Your task to perform on an android device: turn off notifications in google photos Image 0: 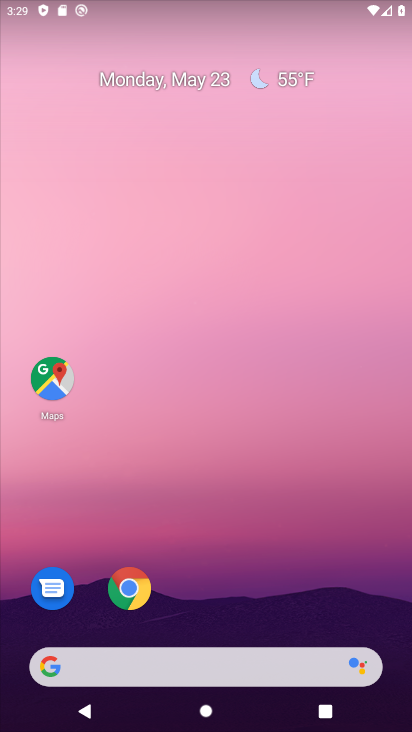
Step 0: drag from (244, 577) to (279, 78)
Your task to perform on an android device: turn off notifications in google photos Image 1: 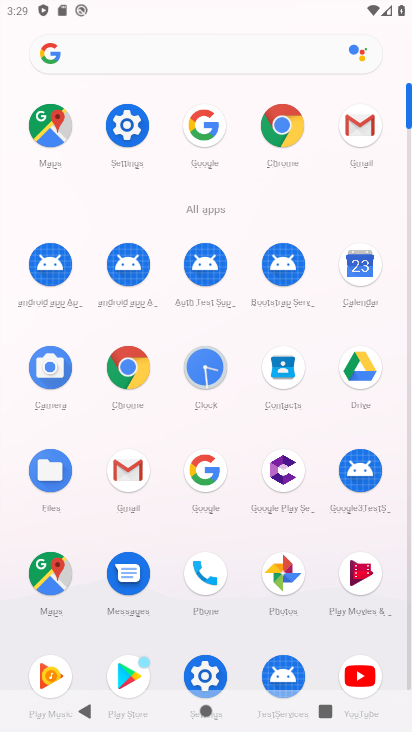
Step 1: click (281, 577)
Your task to perform on an android device: turn off notifications in google photos Image 2: 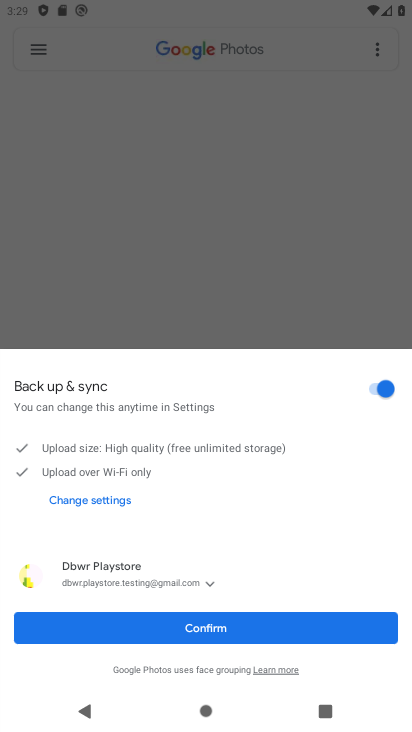
Step 2: click (226, 624)
Your task to perform on an android device: turn off notifications in google photos Image 3: 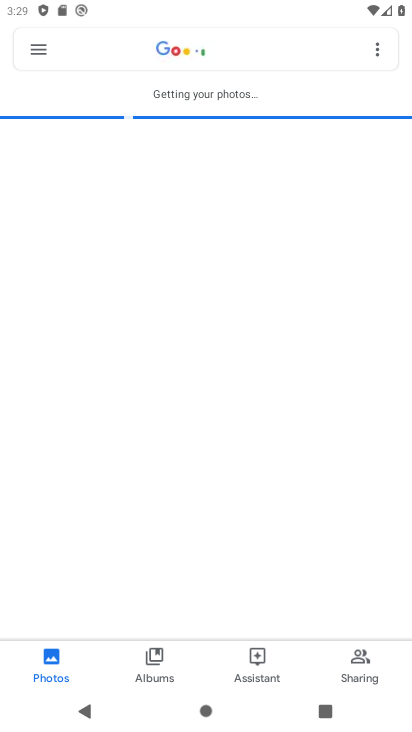
Step 3: click (38, 48)
Your task to perform on an android device: turn off notifications in google photos Image 4: 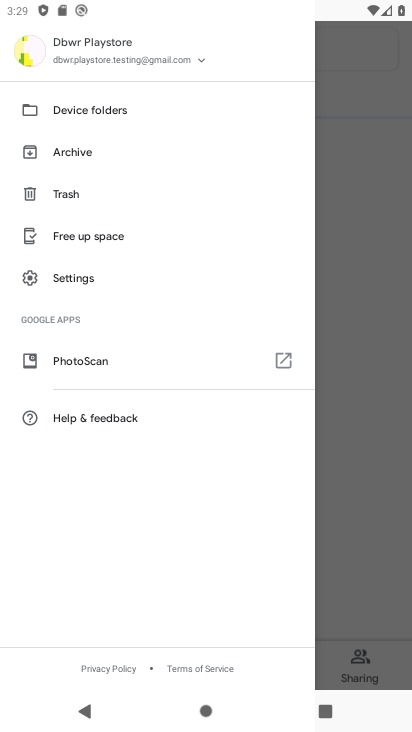
Step 4: click (81, 281)
Your task to perform on an android device: turn off notifications in google photos Image 5: 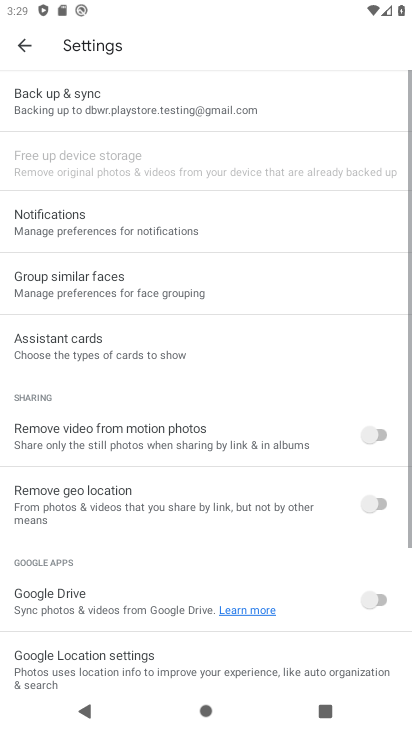
Step 5: click (99, 228)
Your task to perform on an android device: turn off notifications in google photos Image 6: 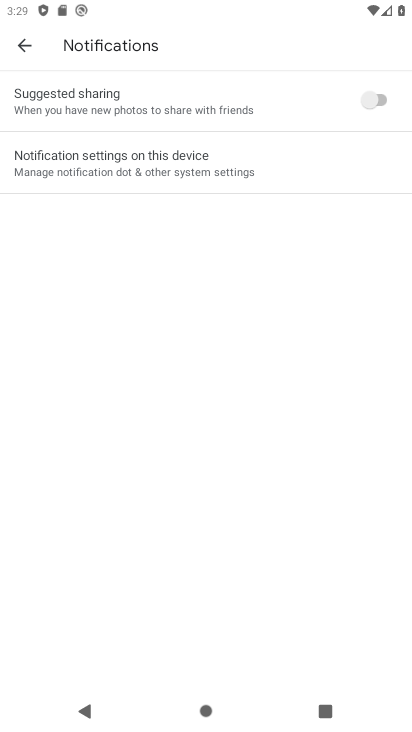
Step 6: click (127, 165)
Your task to perform on an android device: turn off notifications in google photos Image 7: 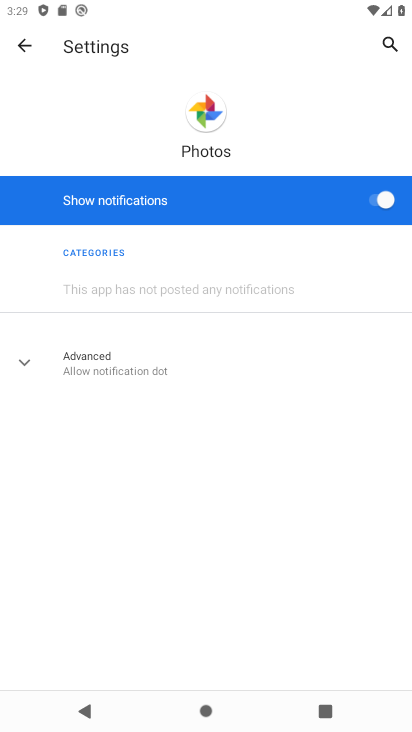
Step 7: click (383, 196)
Your task to perform on an android device: turn off notifications in google photos Image 8: 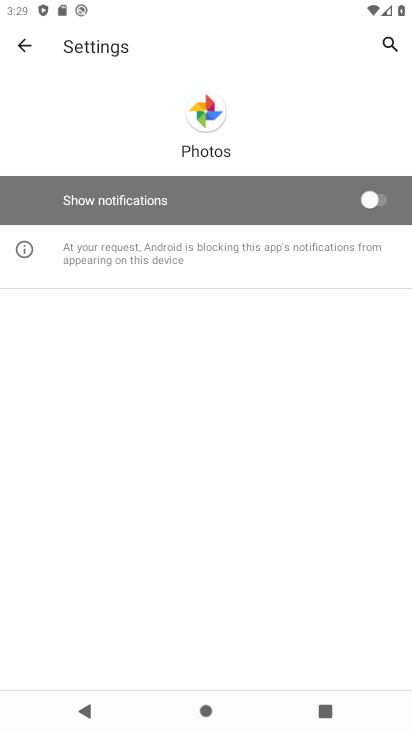
Step 8: task complete